Your task to perform on an android device: add a contact Image 0: 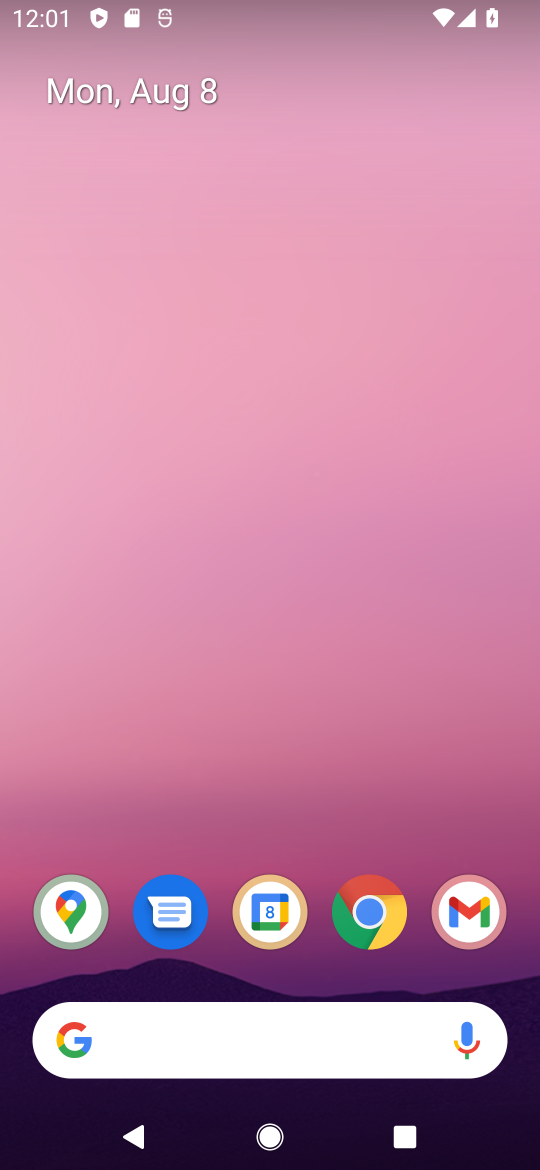
Step 0: drag from (167, 980) to (392, 151)
Your task to perform on an android device: add a contact Image 1: 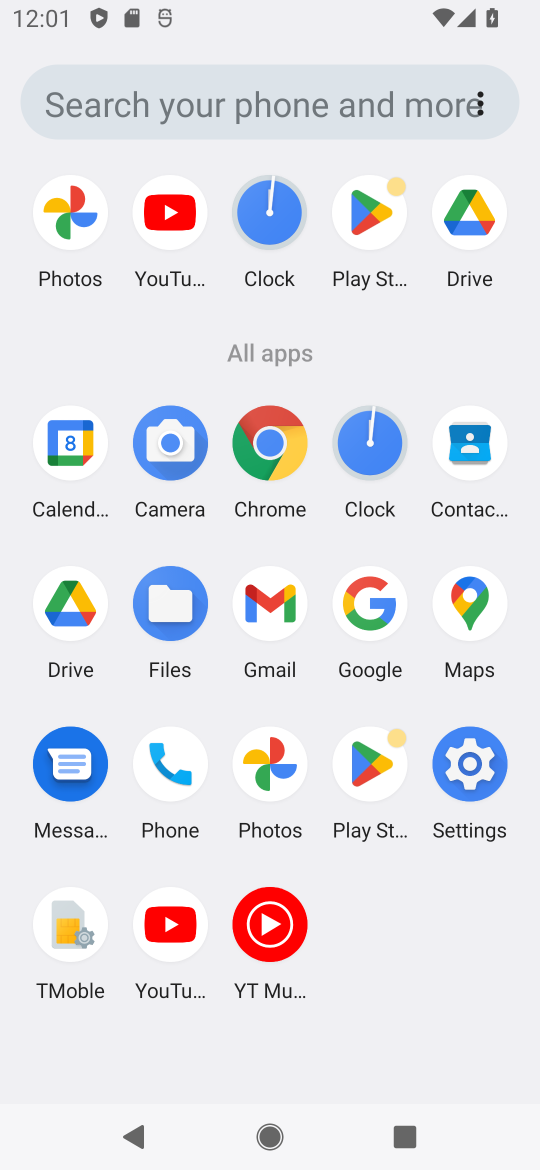
Step 1: click (493, 448)
Your task to perform on an android device: add a contact Image 2: 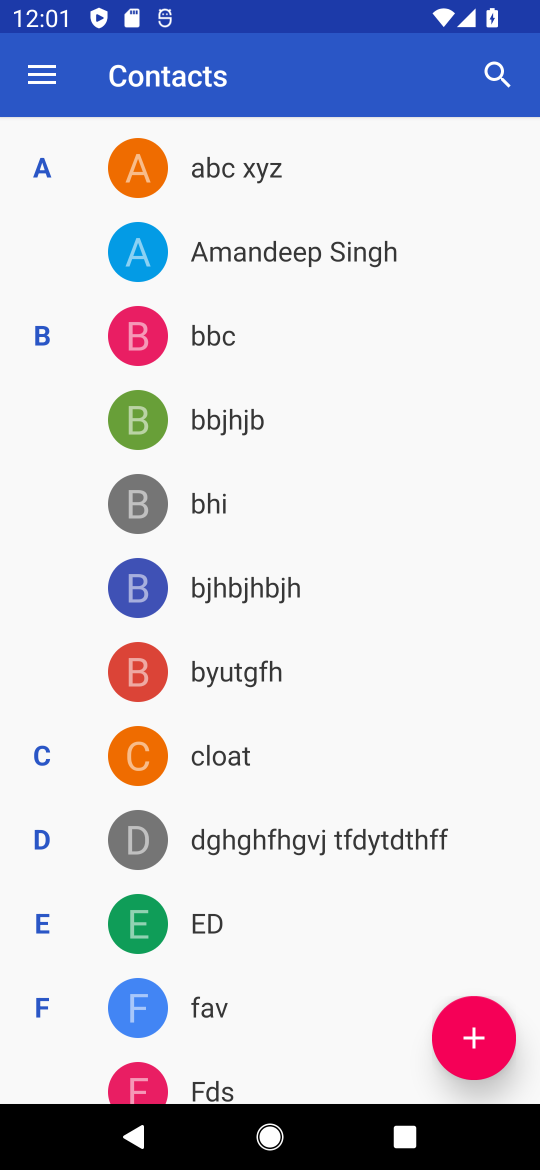
Step 2: click (478, 1042)
Your task to perform on an android device: add a contact Image 3: 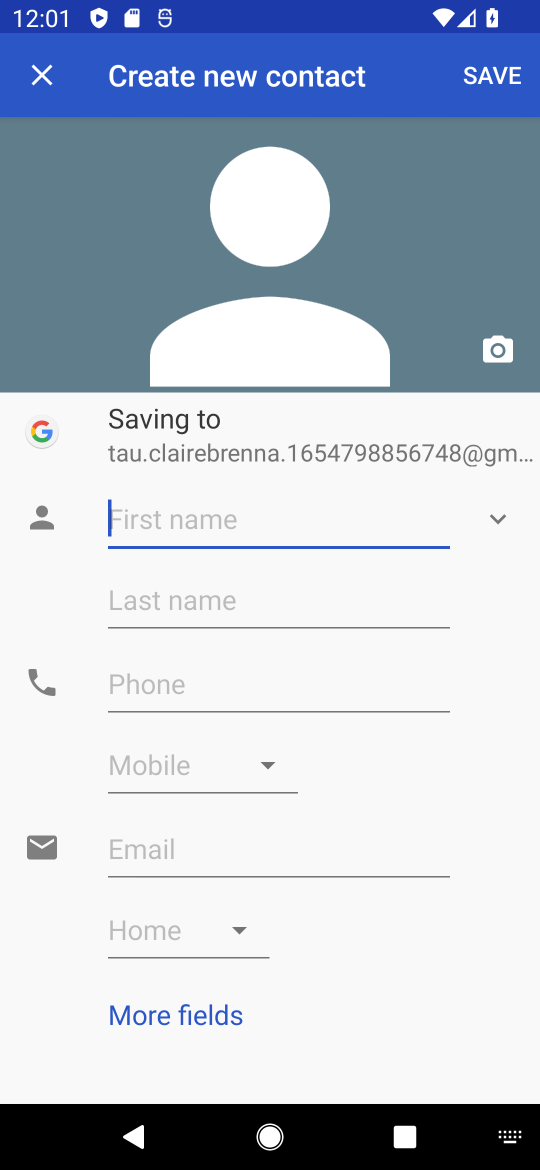
Step 3: click (137, 504)
Your task to perform on an android device: add a contact Image 4: 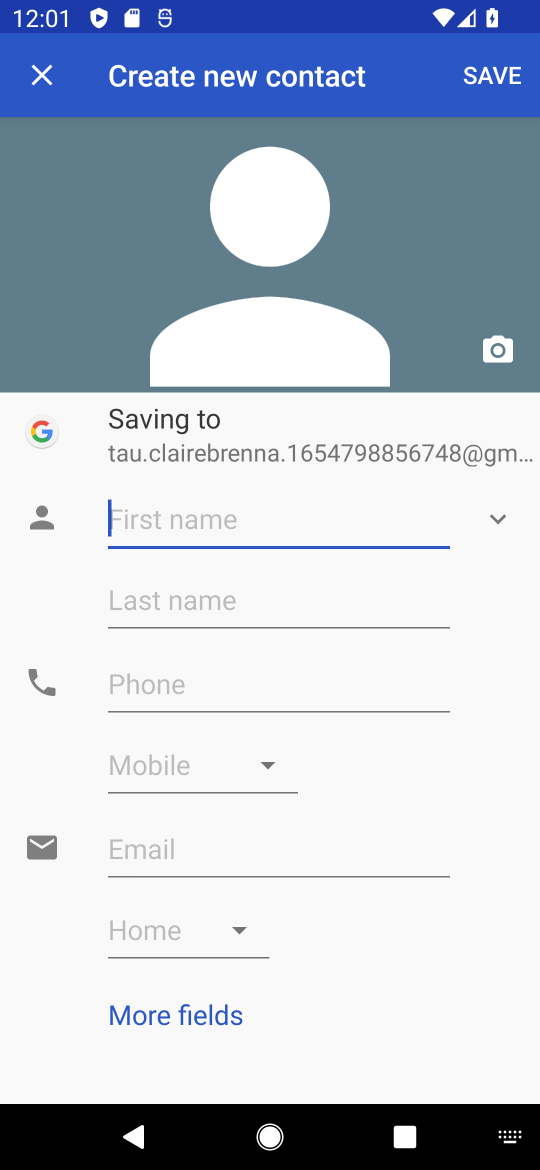
Step 4: type "bvbvb"
Your task to perform on an android device: add a contact Image 5: 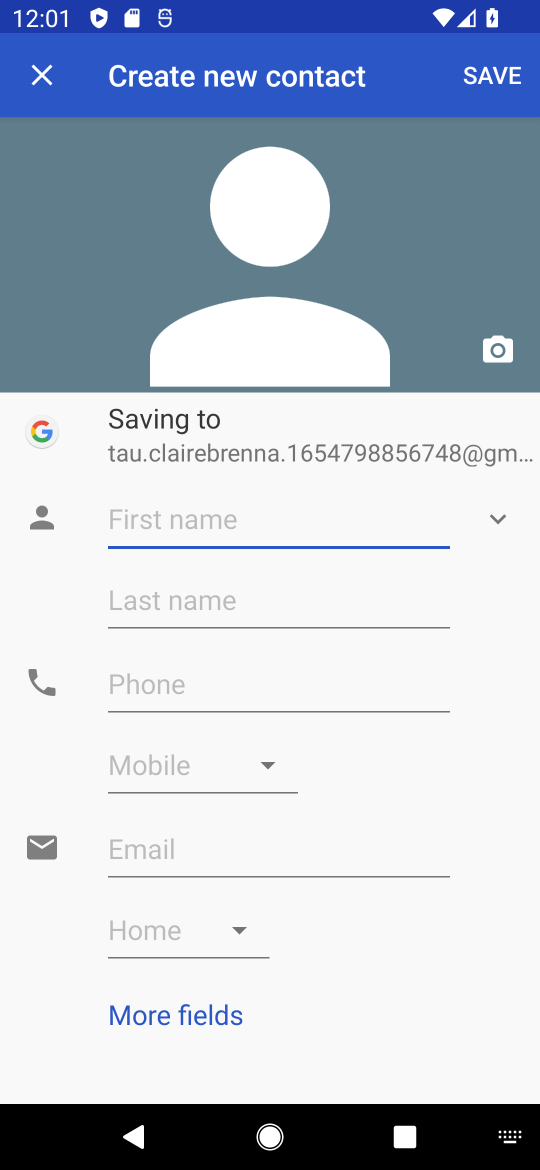
Step 5: click (276, 682)
Your task to perform on an android device: add a contact Image 6: 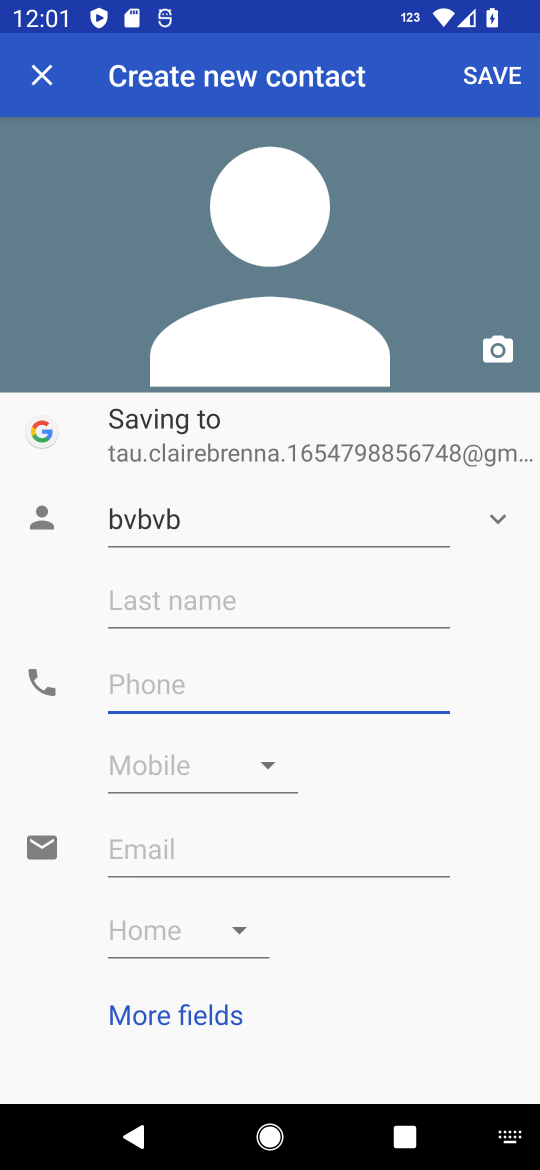
Step 6: type "68677"
Your task to perform on an android device: add a contact Image 7: 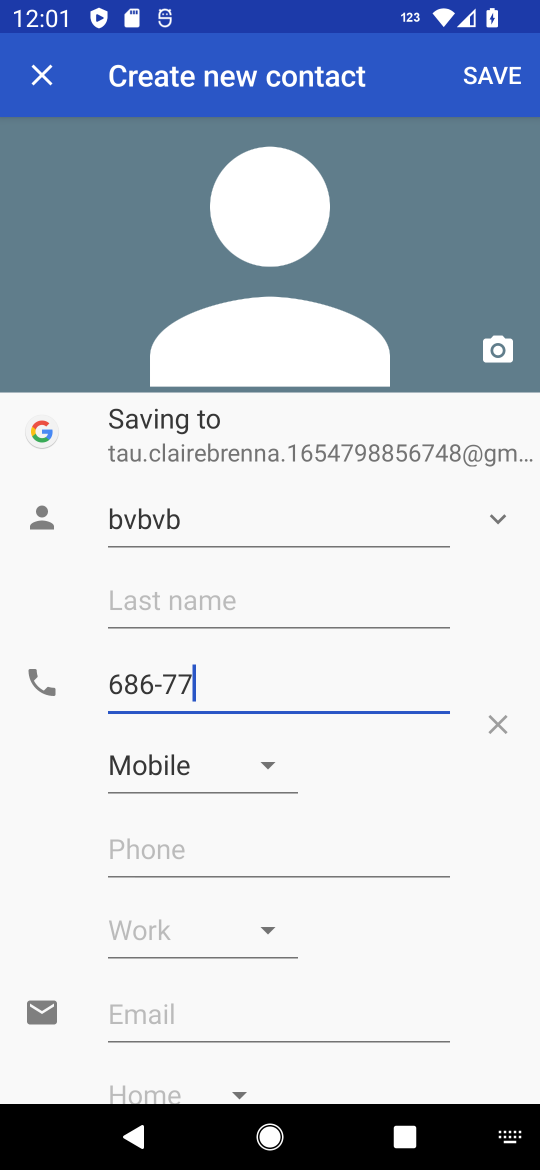
Step 7: click (504, 60)
Your task to perform on an android device: add a contact Image 8: 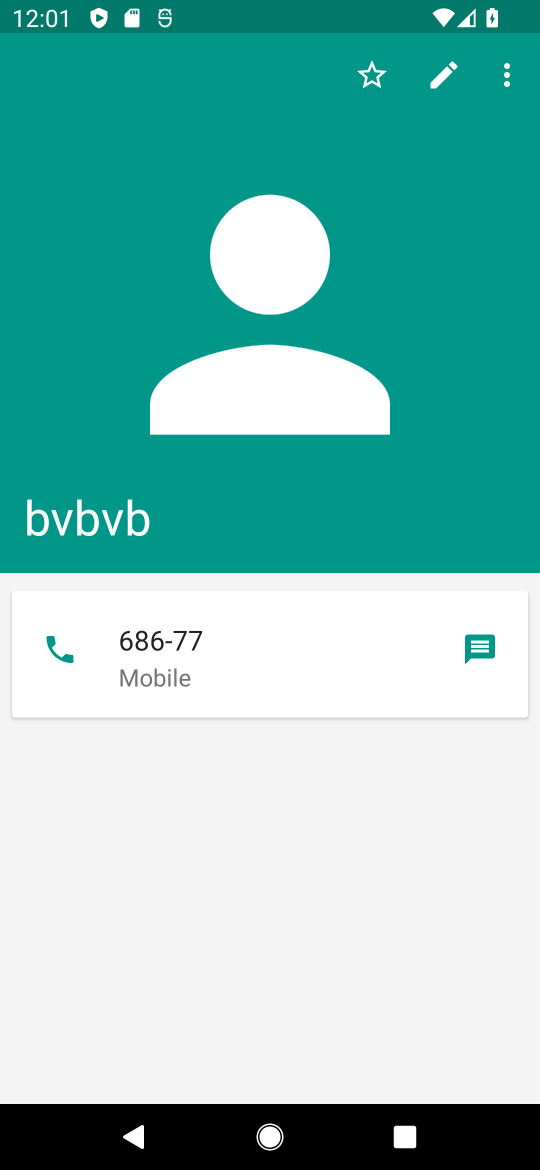
Step 8: task complete